Your task to perform on an android device: Show me recent news Image 0: 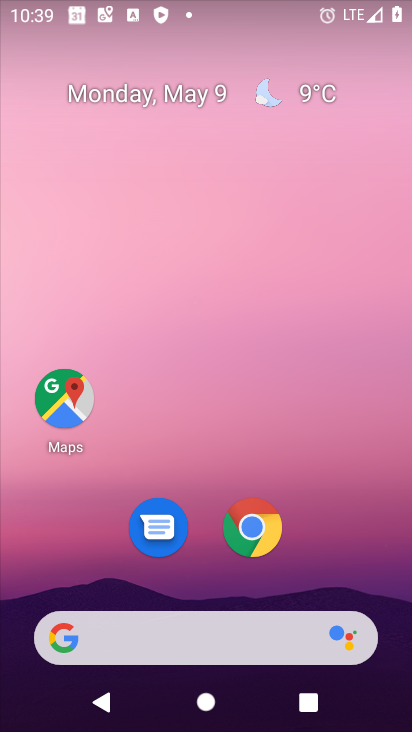
Step 0: drag from (5, 229) to (409, 317)
Your task to perform on an android device: Show me recent news Image 1: 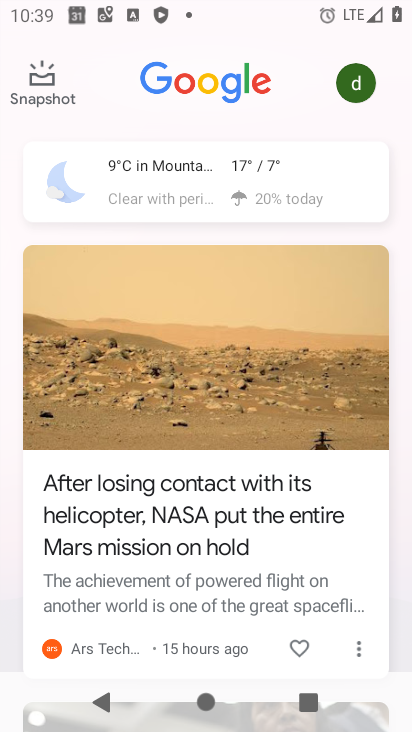
Step 1: task complete